Your task to perform on an android device: see creations saved in the google photos Image 0: 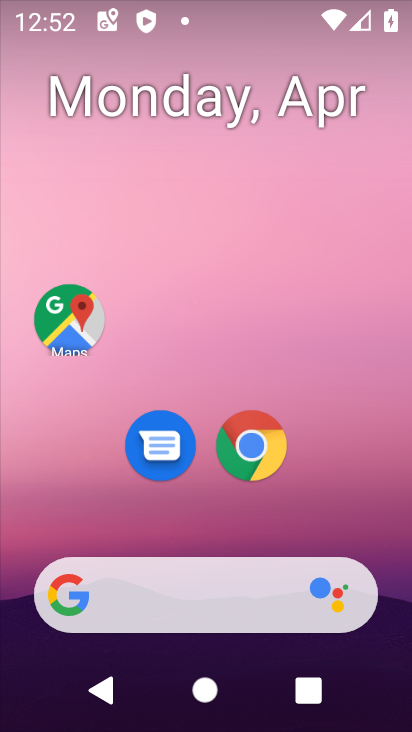
Step 0: drag from (372, 502) to (354, 96)
Your task to perform on an android device: see creations saved in the google photos Image 1: 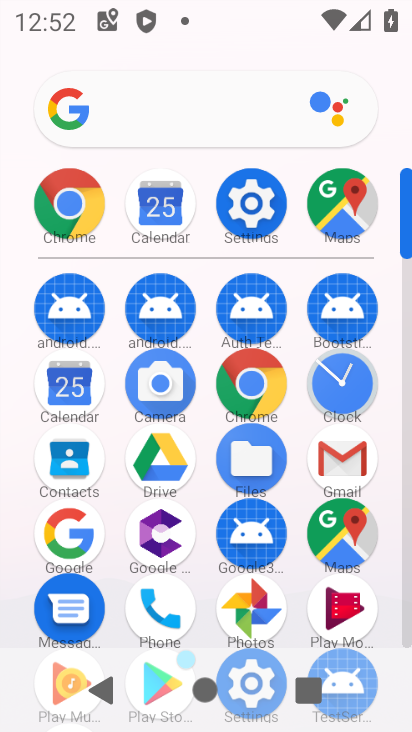
Step 1: drag from (391, 567) to (380, 358)
Your task to perform on an android device: see creations saved in the google photos Image 2: 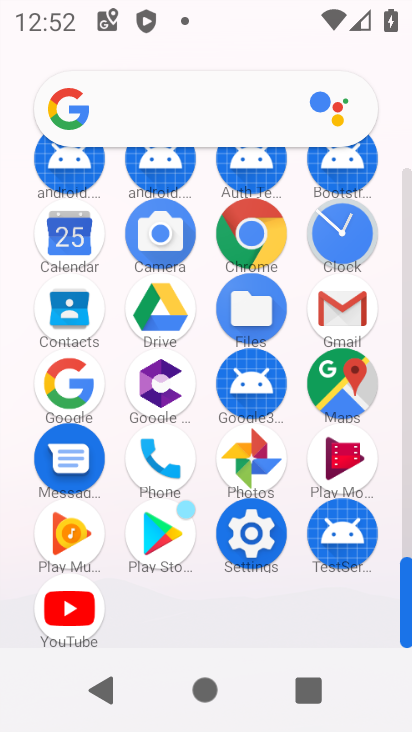
Step 2: click (254, 466)
Your task to perform on an android device: see creations saved in the google photos Image 3: 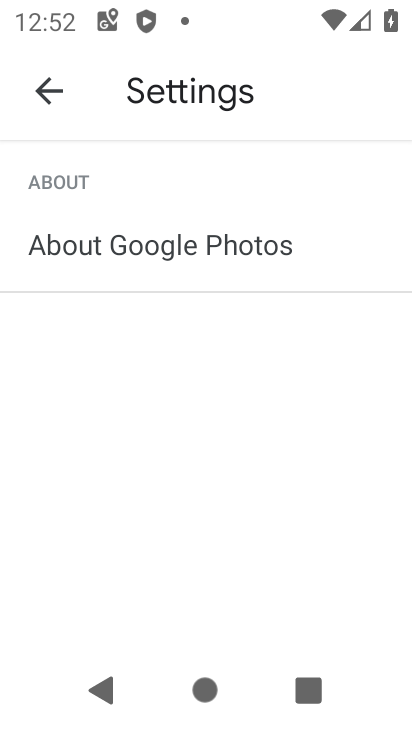
Step 3: click (48, 90)
Your task to perform on an android device: see creations saved in the google photos Image 4: 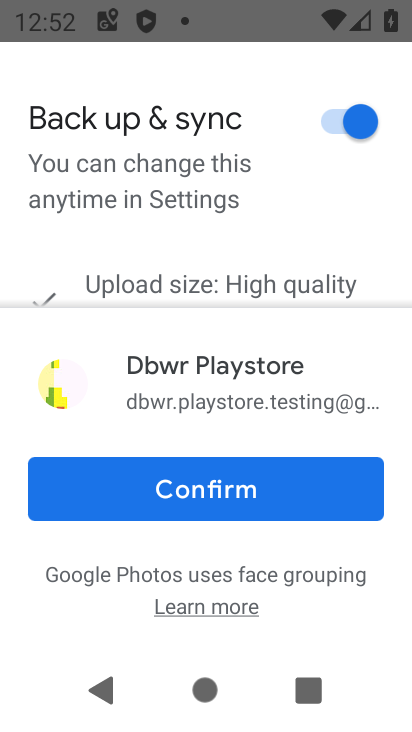
Step 4: click (216, 487)
Your task to perform on an android device: see creations saved in the google photos Image 5: 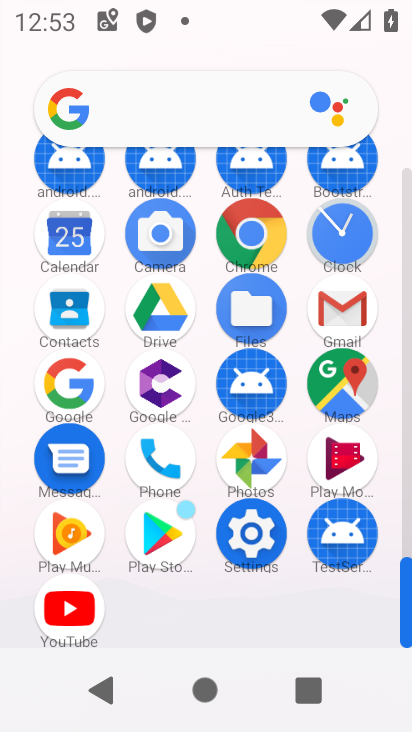
Step 5: click (255, 453)
Your task to perform on an android device: see creations saved in the google photos Image 6: 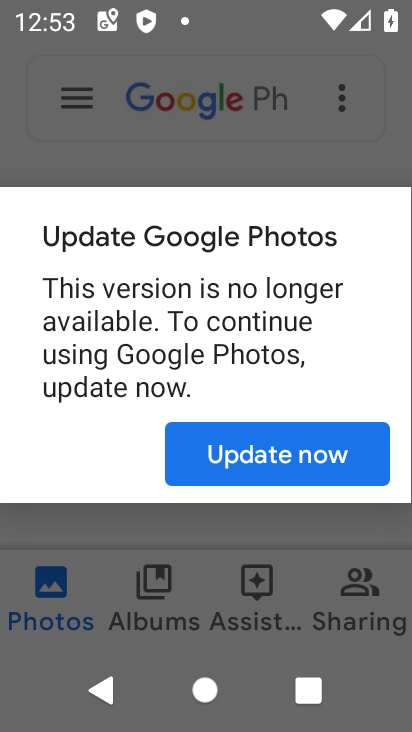
Step 6: click (255, 453)
Your task to perform on an android device: see creations saved in the google photos Image 7: 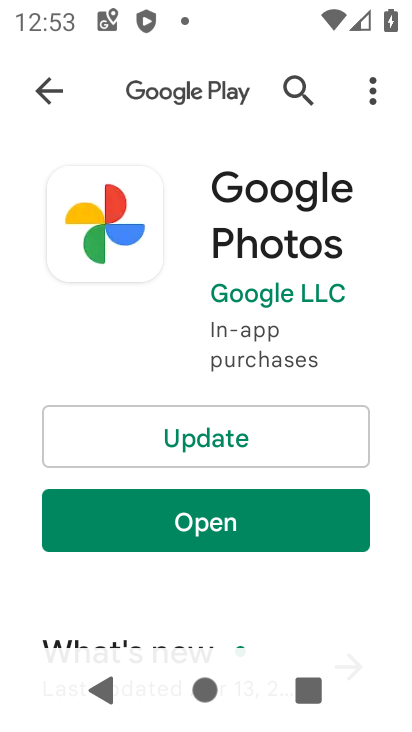
Step 7: click (255, 453)
Your task to perform on an android device: see creations saved in the google photos Image 8: 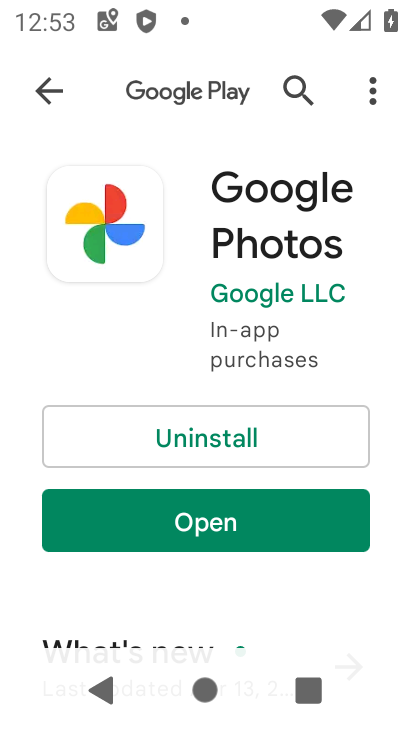
Step 8: click (229, 532)
Your task to perform on an android device: see creations saved in the google photos Image 9: 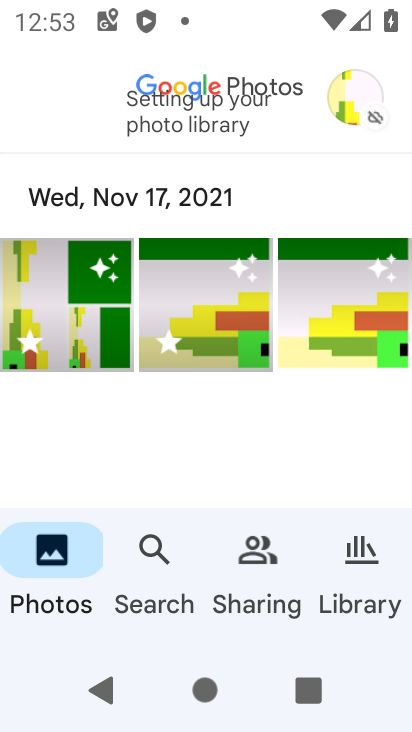
Step 9: click (162, 573)
Your task to perform on an android device: see creations saved in the google photos Image 10: 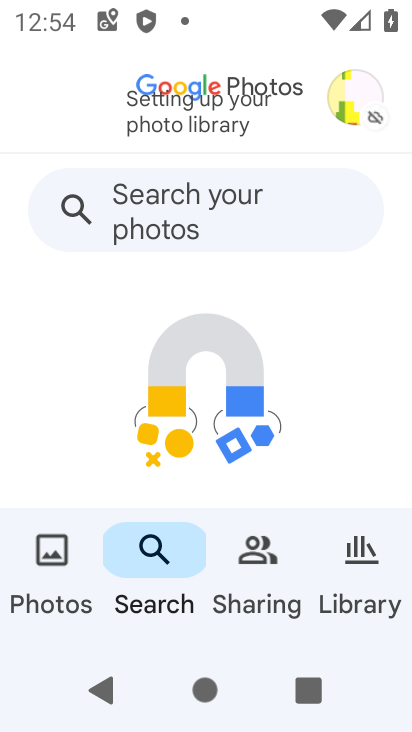
Step 10: click (226, 218)
Your task to perform on an android device: see creations saved in the google photos Image 11: 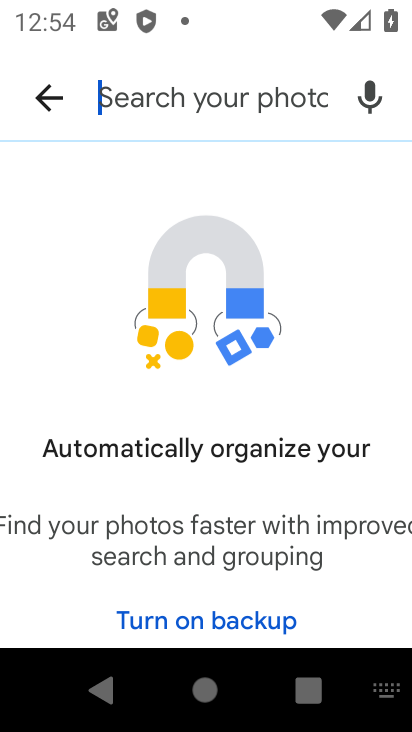
Step 11: click (48, 100)
Your task to perform on an android device: see creations saved in the google photos Image 12: 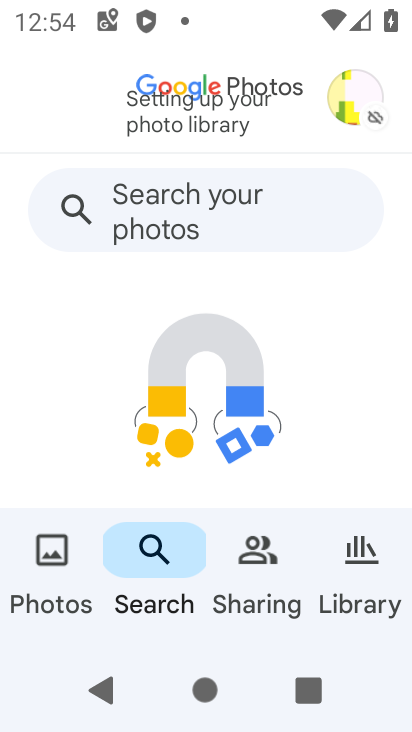
Step 12: drag from (314, 380) to (322, 188)
Your task to perform on an android device: see creations saved in the google photos Image 13: 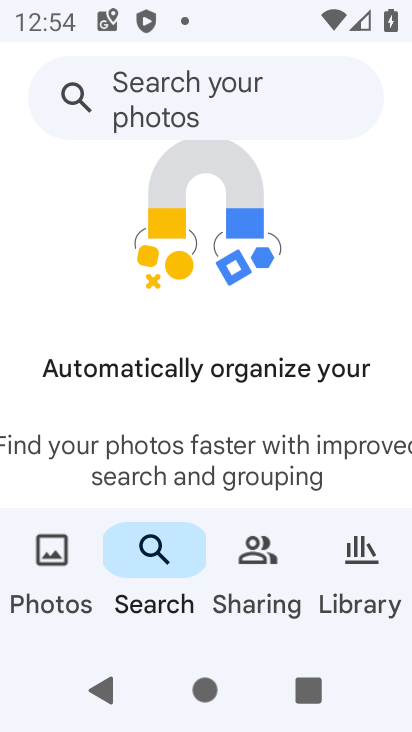
Step 13: drag from (275, 442) to (271, 168)
Your task to perform on an android device: see creations saved in the google photos Image 14: 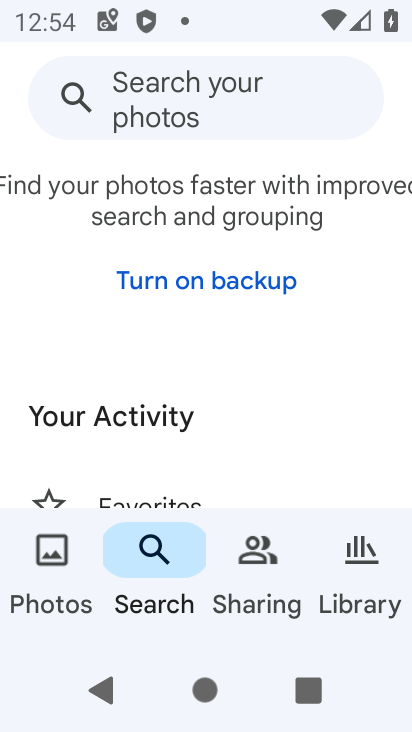
Step 14: drag from (275, 434) to (275, 235)
Your task to perform on an android device: see creations saved in the google photos Image 15: 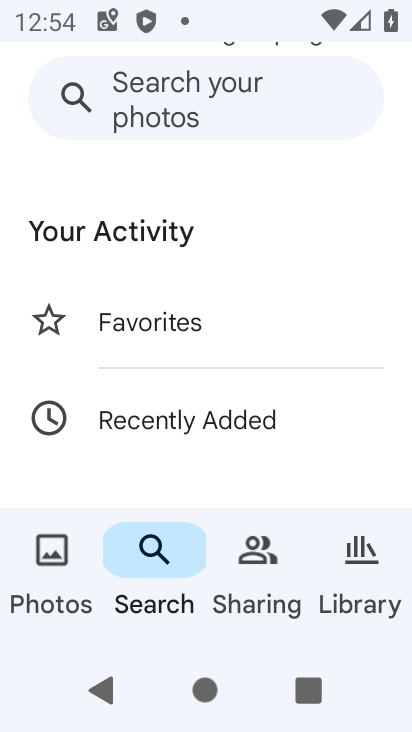
Step 15: drag from (270, 428) to (269, 215)
Your task to perform on an android device: see creations saved in the google photos Image 16: 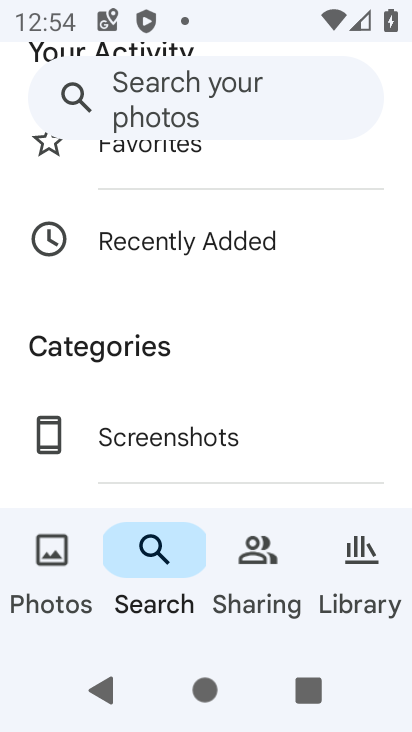
Step 16: drag from (297, 439) to (318, 196)
Your task to perform on an android device: see creations saved in the google photos Image 17: 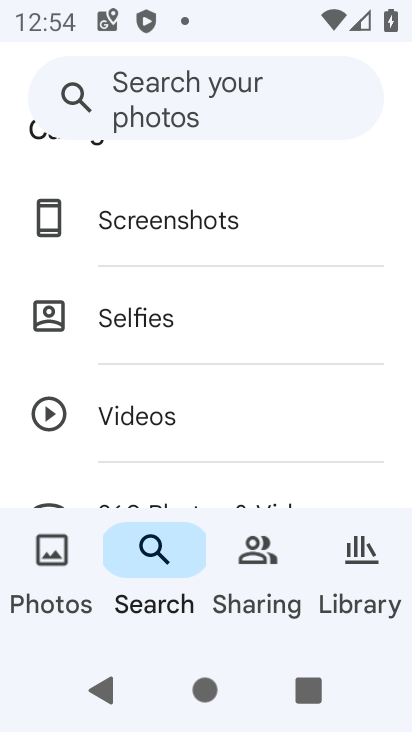
Step 17: drag from (281, 446) to (281, 186)
Your task to perform on an android device: see creations saved in the google photos Image 18: 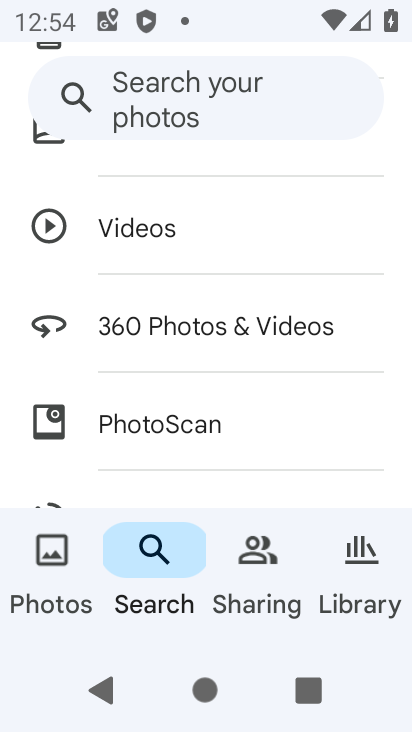
Step 18: drag from (316, 462) to (310, 211)
Your task to perform on an android device: see creations saved in the google photos Image 19: 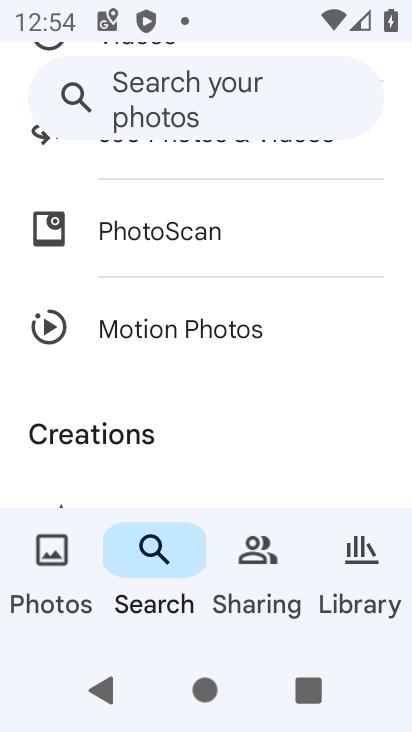
Step 19: drag from (317, 388) to (314, 218)
Your task to perform on an android device: see creations saved in the google photos Image 20: 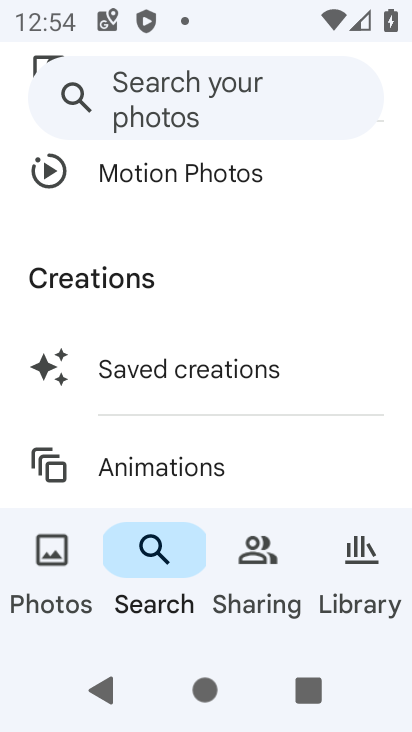
Step 20: click (246, 368)
Your task to perform on an android device: see creations saved in the google photos Image 21: 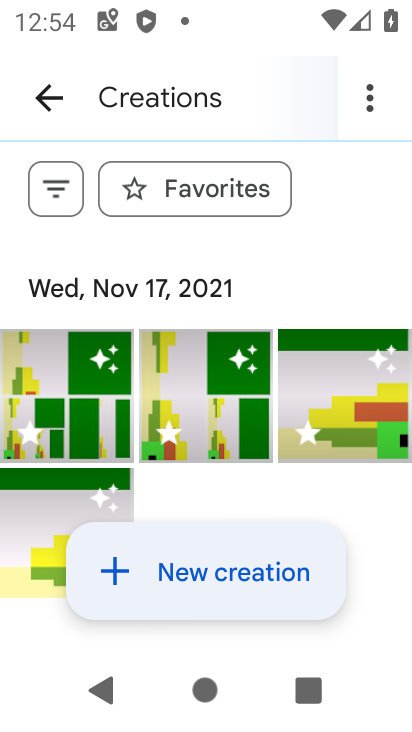
Step 21: task complete